Your task to perform on an android device: toggle show notifications on the lock screen Image 0: 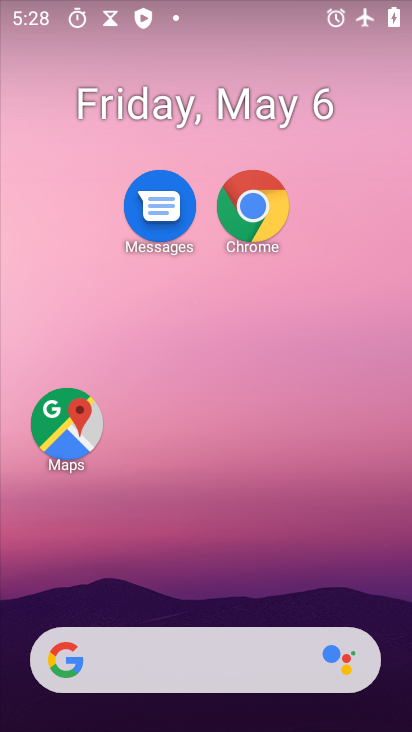
Step 0: drag from (177, 626) to (175, 272)
Your task to perform on an android device: toggle show notifications on the lock screen Image 1: 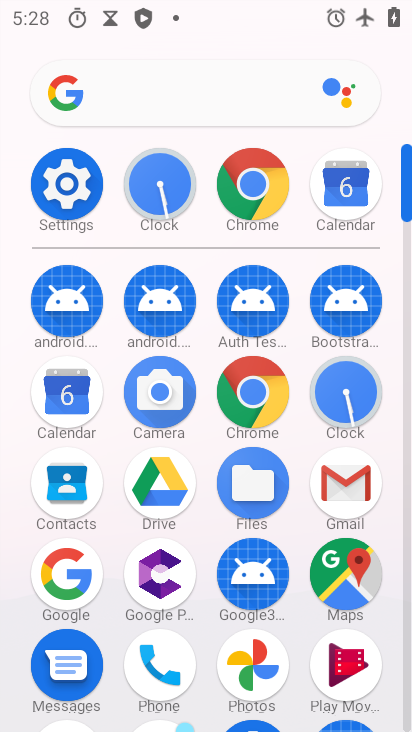
Step 1: click (66, 190)
Your task to perform on an android device: toggle show notifications on the lock screen Image 2: 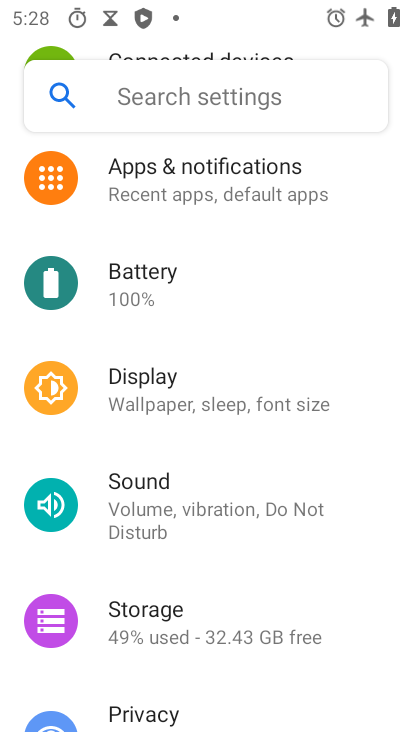
Step 2: drag from (176, 671) to (161, 297)
Your task to perform on an android device: toggle show notifications on the lock screen Image 3: 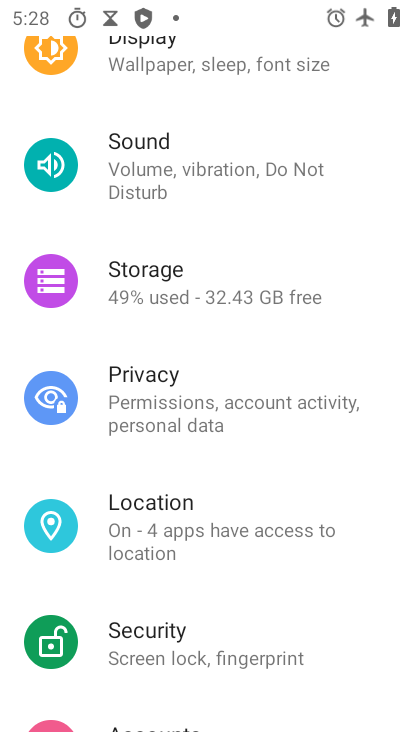
Step 3: click (133, 402)
Your task to perform on an android device: toggle show notifications on the lock screen Image 4: 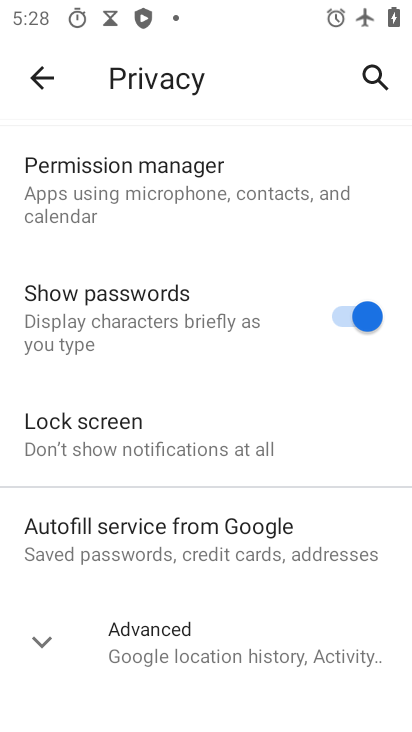
Step 4: click (114, 443)
Your task to perform on an android device: toggle show notifications on the lock screen Image 5: 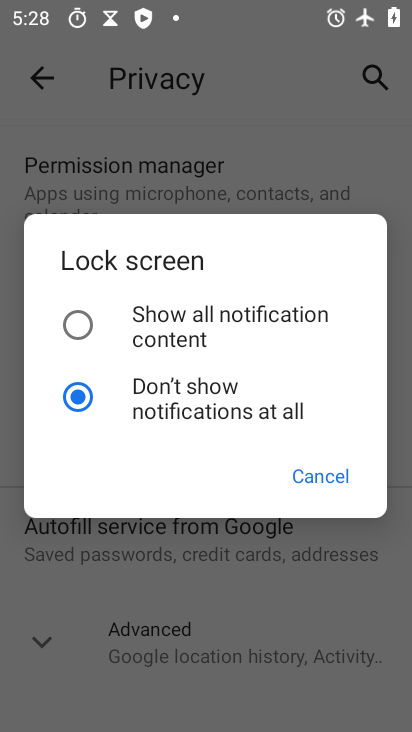
Step 5: click (73, 317)
Your task to perform on an android device: toggle show notifications on the lock screen Image 6: 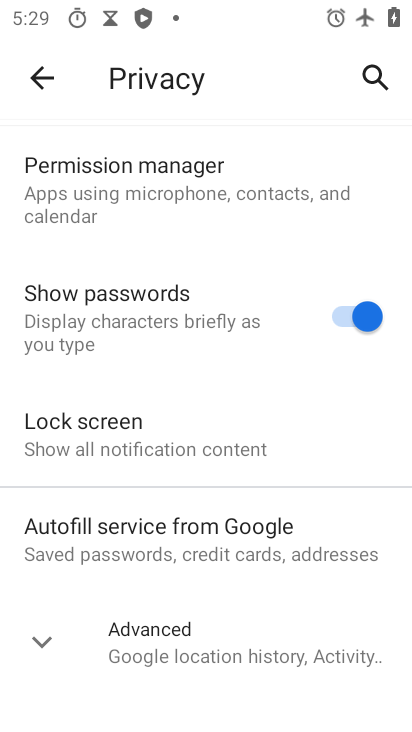
Step 6: task complete